Your task to perform on an android device: turn off notifications in google photos Image 0: 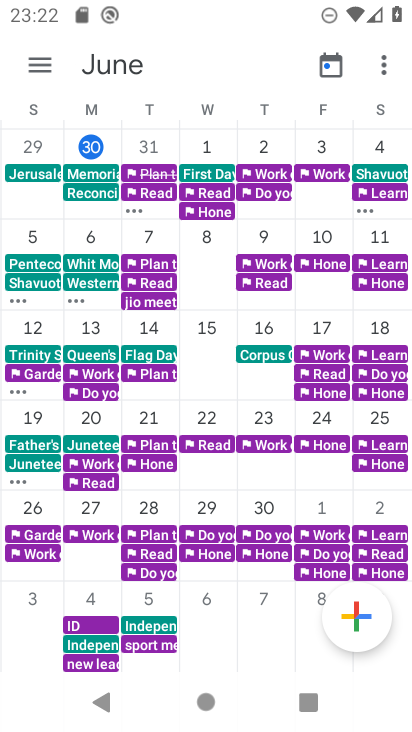
Step 0: press home button
Your task to perform on an android device: turn off notifications in google photos Image 1: 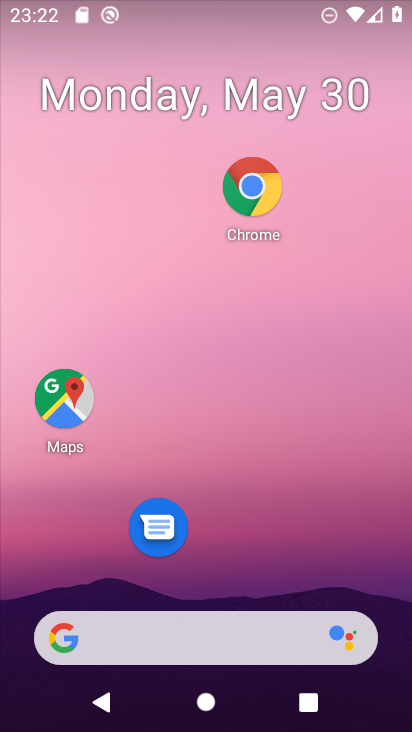
Step 1: drag from (236, 568) to (245, 241)
Your task to perform on an android device: turn off notifications in google photos Image 2: 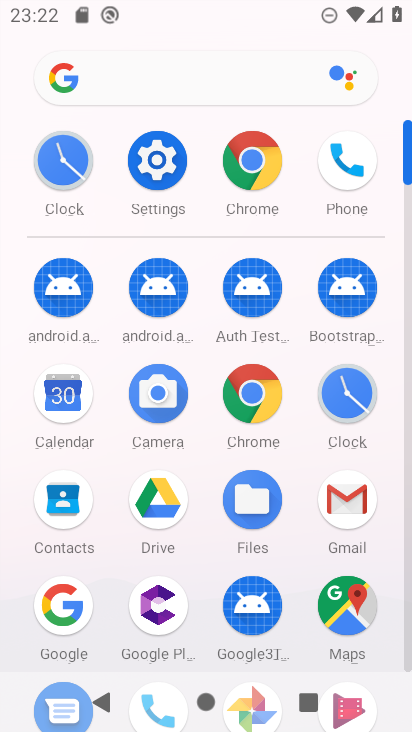
Step 2: drag from (187, 573) to (221, 354)
Your task to perform on an android device: turn off notifications in google photos Image 3: 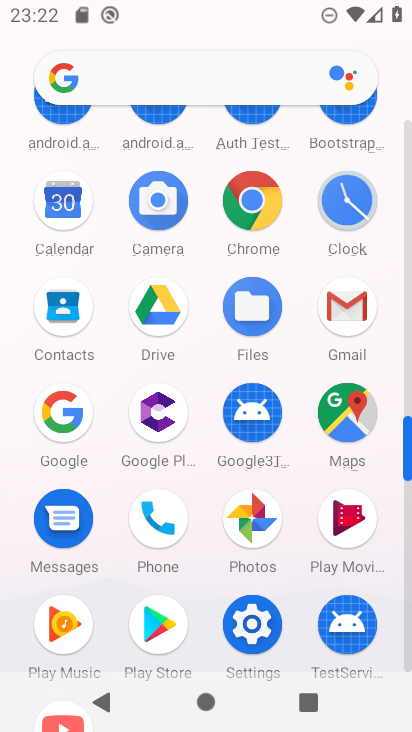
Step 3: click (248, 519)
Your task to perform on an android device: turn off notifications in google photos Image 4: 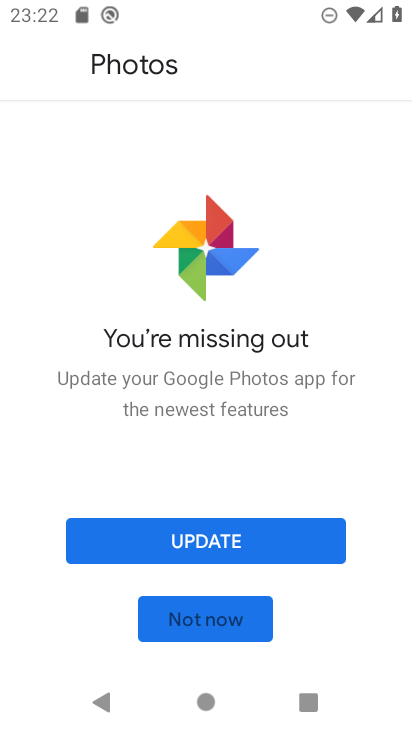
Step 4: click (213, 616)
Your task to perform on an android device: turn off notifications in google photos Image 5: 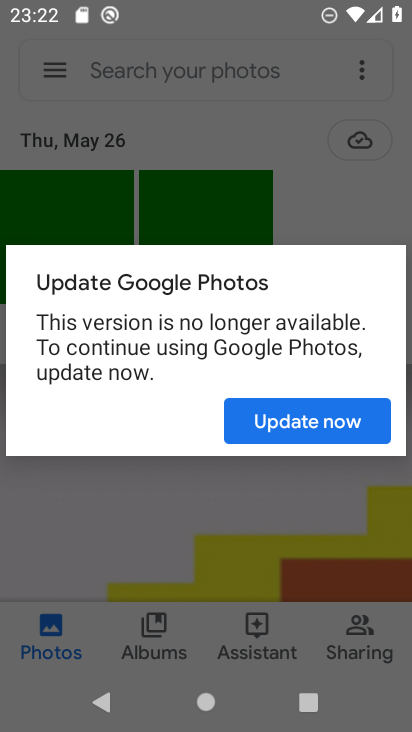
Step 5: click (299, 415)
Your task to perform on an android device: turn off notifications in google photos Image 6: 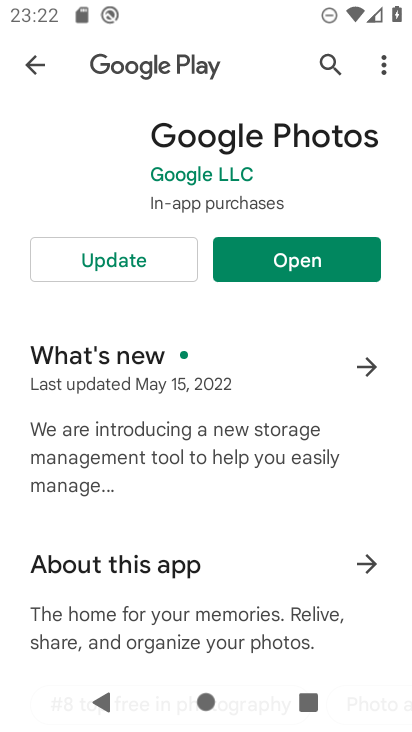
Step 6: press back button
Your task to perform on an android device: turn off notifications in google photos Image 7: 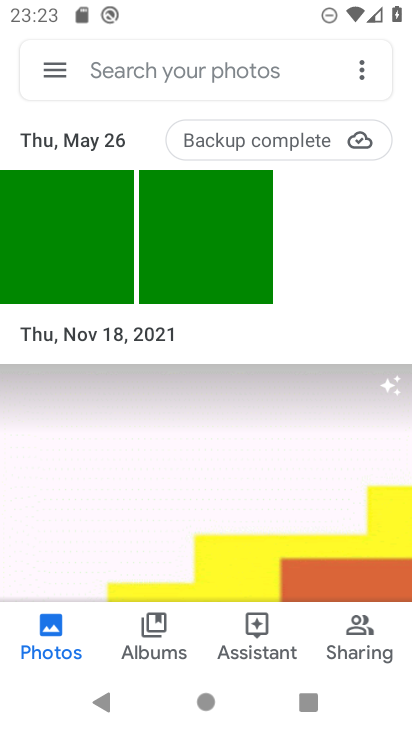
Step 7: click (42, 64)
Your task to perform on an android device: turn off notifications in google photos Image 8: 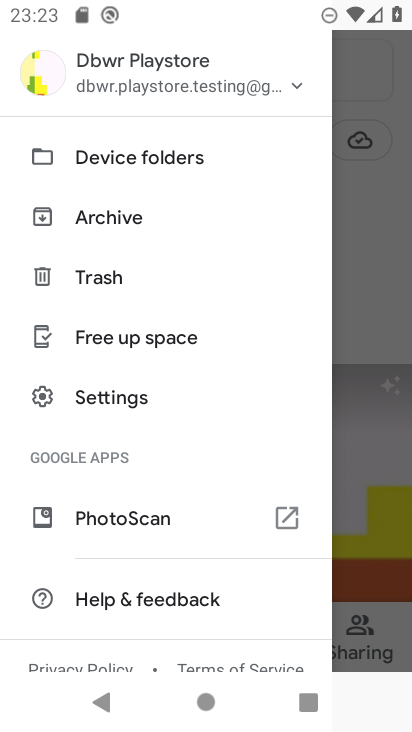
Step 8: click (133, 391)
Your task to perform on an android device: turn off notifications in google photos Image 9: 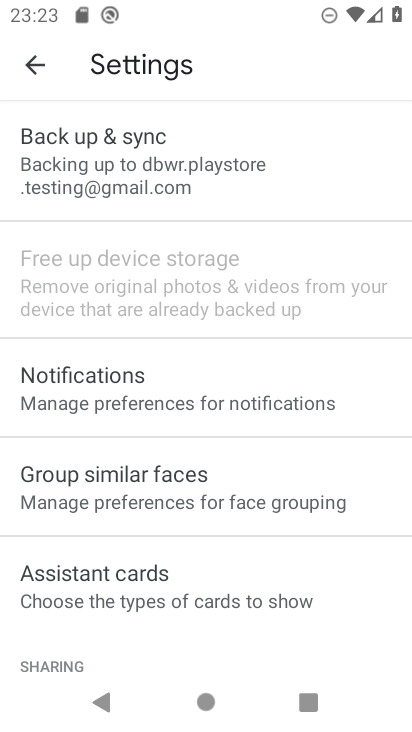
Step 9: drag from (217, 567) to (233, 325)
Your task to perform on an android device: turn off notifications in google photos Image 10: 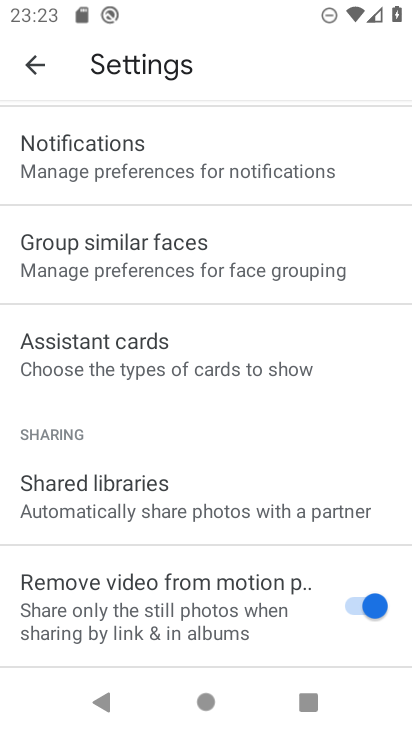
Step 10: click (192, 162)
Your task to perform on an android device: turn off notifications in google photos Image 11: 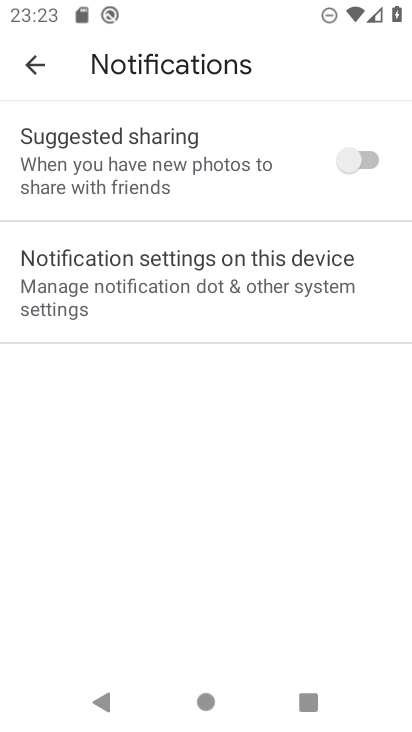
Step 11: click (184, 262)
Your task to perform on an android device: turn off notifications in google photos Image 12: 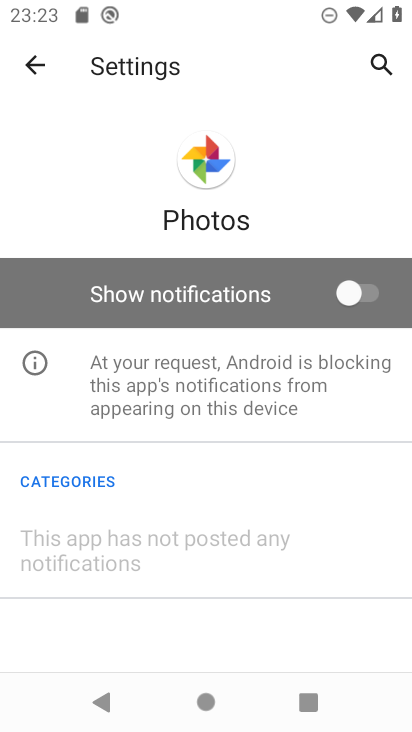
Step 12: task complete